Your task to perform on an android device: change the clock display to analog Image 0: 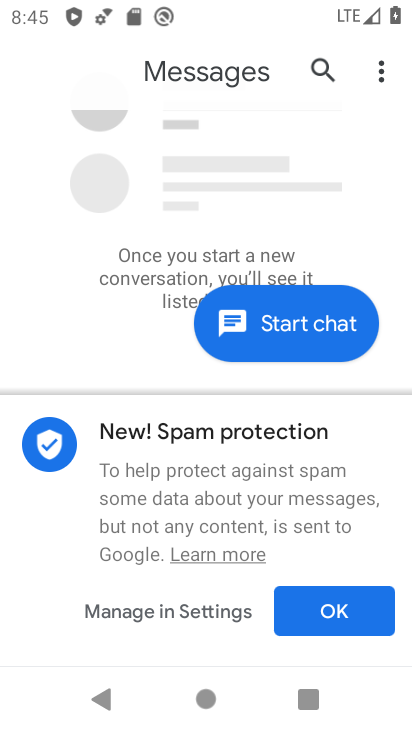
Step 0: press home button
Your task to perform on an android device: change the clock display to analog Image 1: 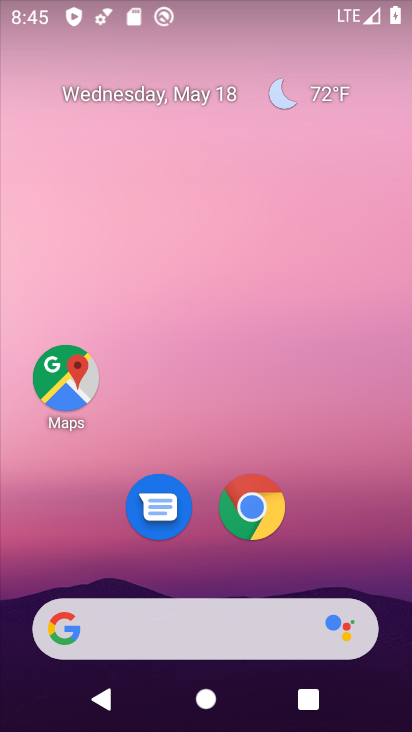
Step 1: drag from (338, 547) to (343, 159)
Your task to perform on an android device: change the clock display to analog Image 2: 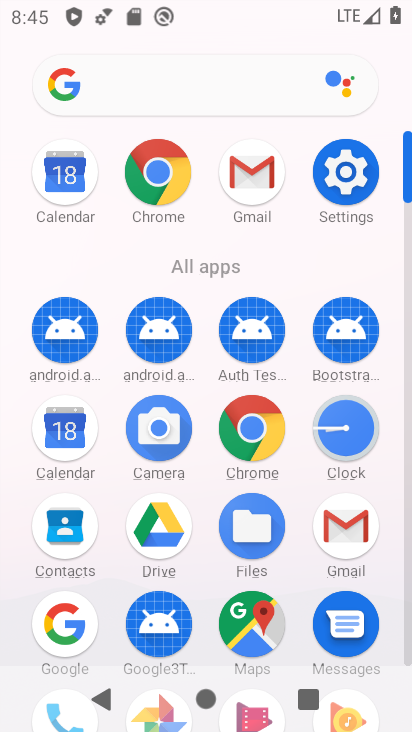
Step 2: click (350, 452)
Your task to perform on an android device: change the clock display to analog Image 3: 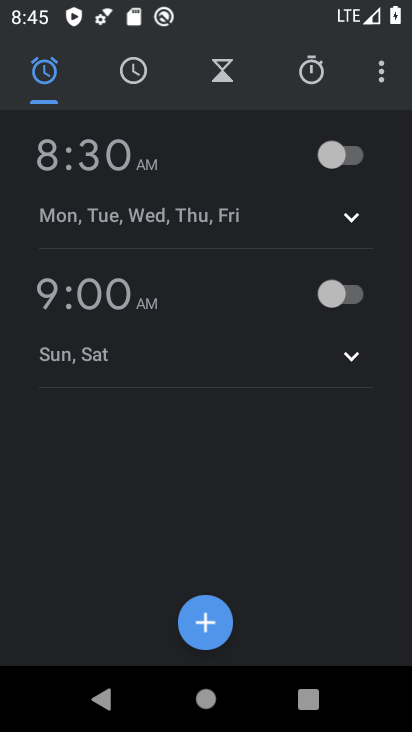
Step 3: click (368, 70)
Your task to perform on an android device: change the clock display to analog Image 4: 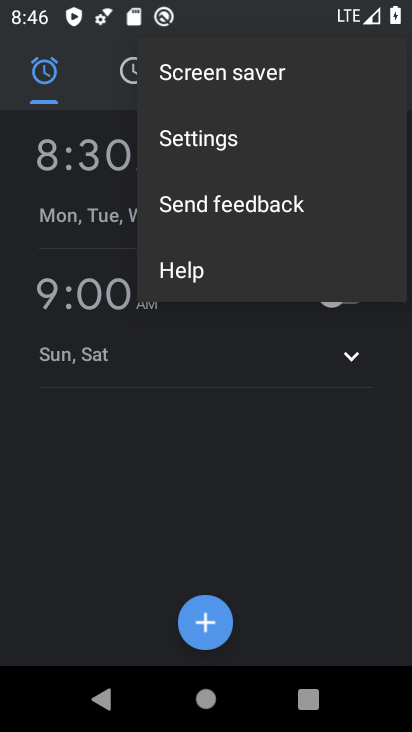
Step 4: click (301, 140)
Your task to perform on an android device: change the clock display to analog Image 5: 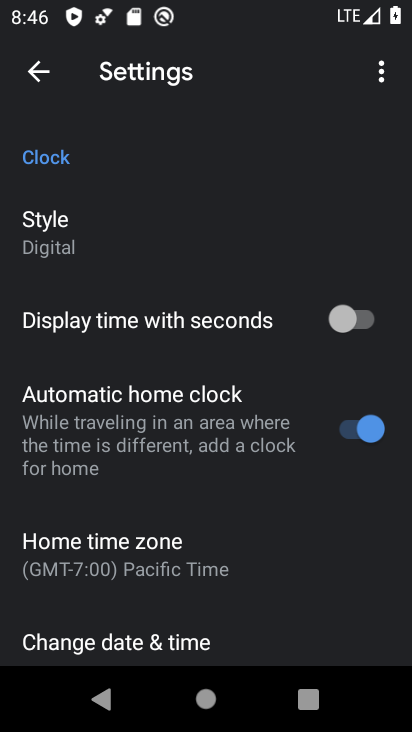
Step 5: click (82, 247)
Your task to perform on an android device: change the clock display to analog Image 6: 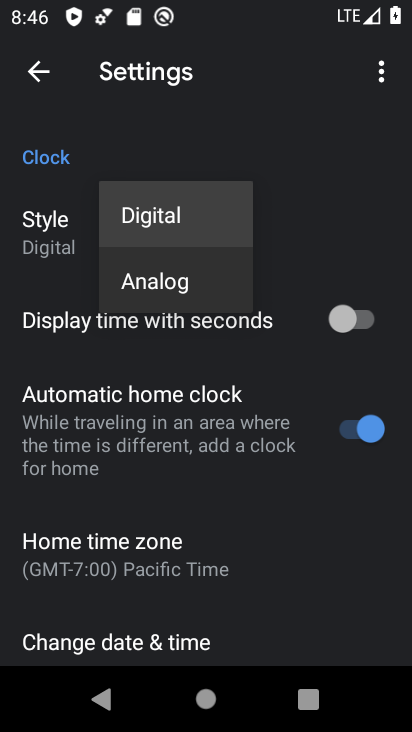
Step 6: click (144, 278)
Your task to perform on an android device: change the clock display to analog Image 7: 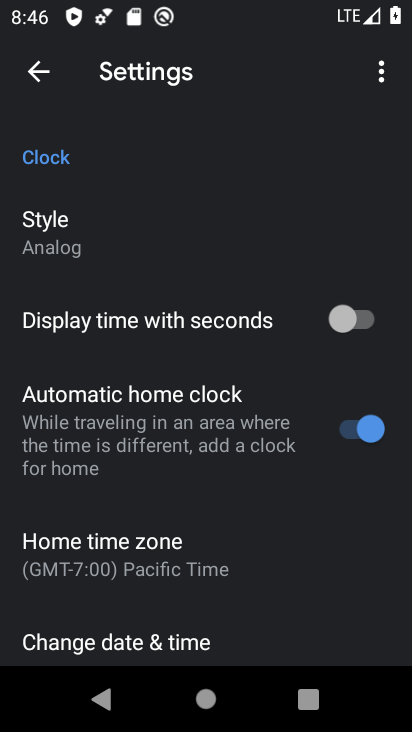
Step 7: task complete